Your task to perform on an android device: Open Chrome and go to the settings page Image 0: 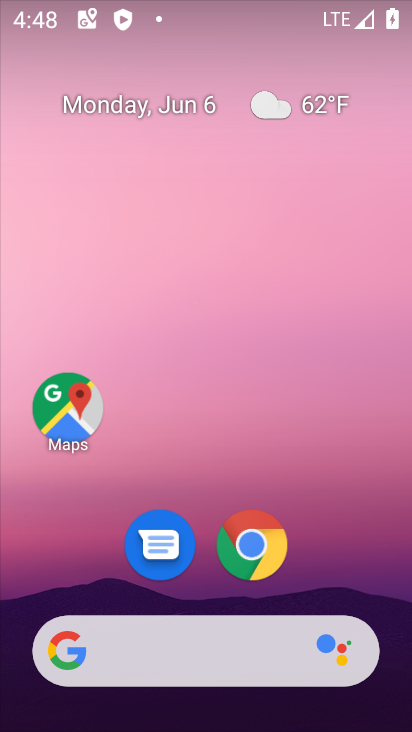
Step 0: click (242, 544)
Your task to perform on an android device: Open Chrome and go to the settings page Image 1: 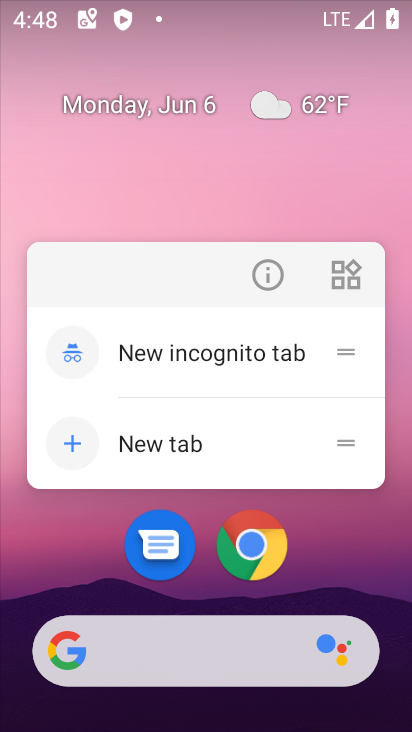
Step 1: click (261, 544)
Your task to perform on an android device: Open Chrome and go to the settings page Image 2: 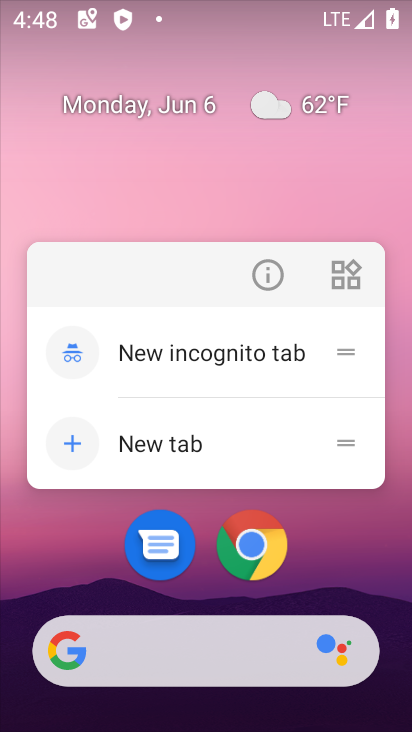
Step 2: click (261, 544)
Your task to perform on an android device: Open Chrome and go to the settings page Image 3: 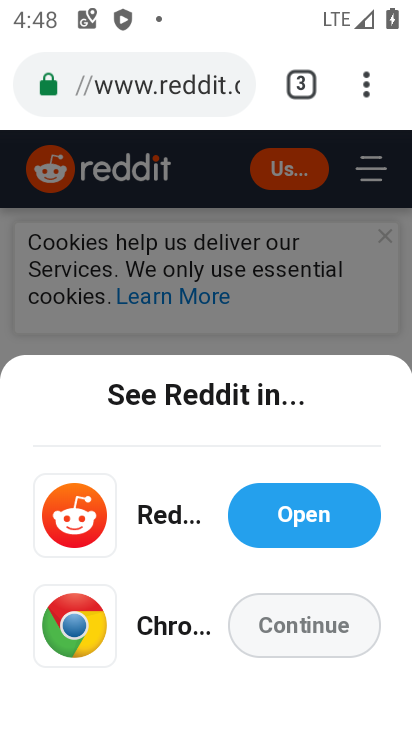
Step 3: click (369, 92)
Your task to perform on an android device: Open Chrome and go to the settings page Image 4: 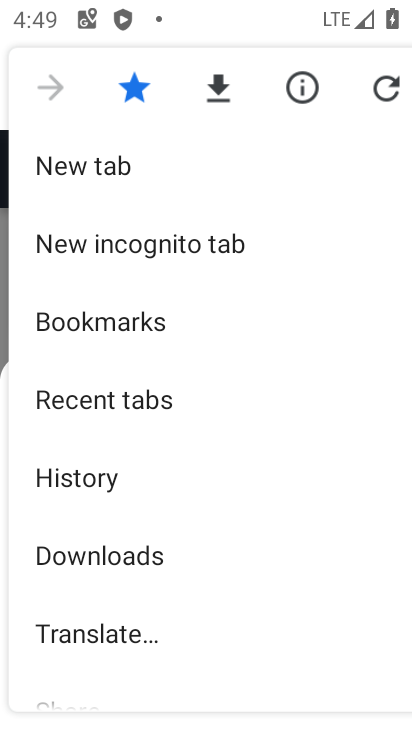
Step 4: drag from (106, 647) to (133, 40)
Your task to perform on an android device: Open Chrome and go to the settings page Image 5: 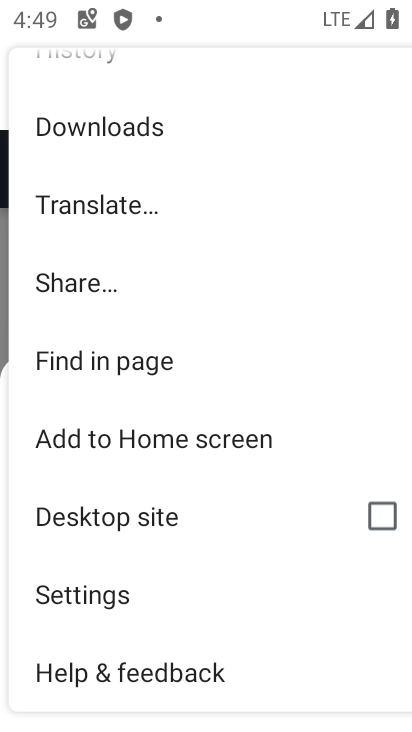
Step 5: click (93, 594)
Your task to perform on an android device: Open Chrome and go to the settings page Image 6: 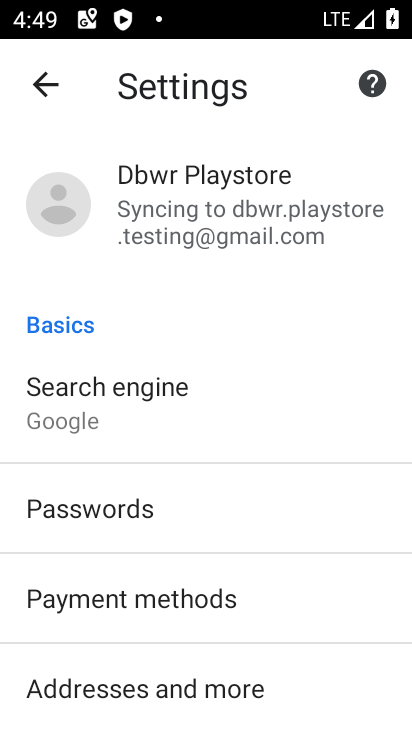
Step 6: task complete